Your task to perform on an android device: turn on translation in the chrome app Image 0: 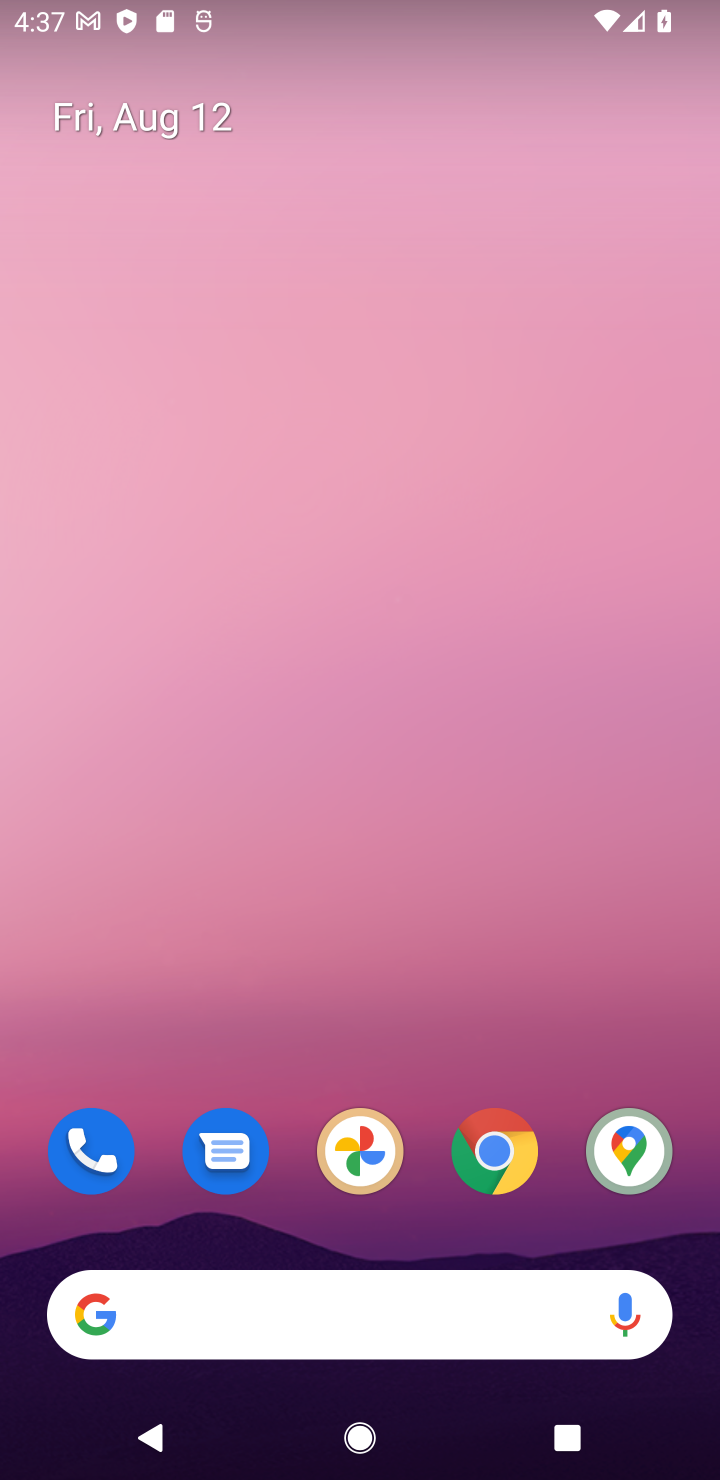
Step 0: drag from (409, 862) to (529, 143)
Your task to perform on an android device: turn on translation in the chrome app Image 1: 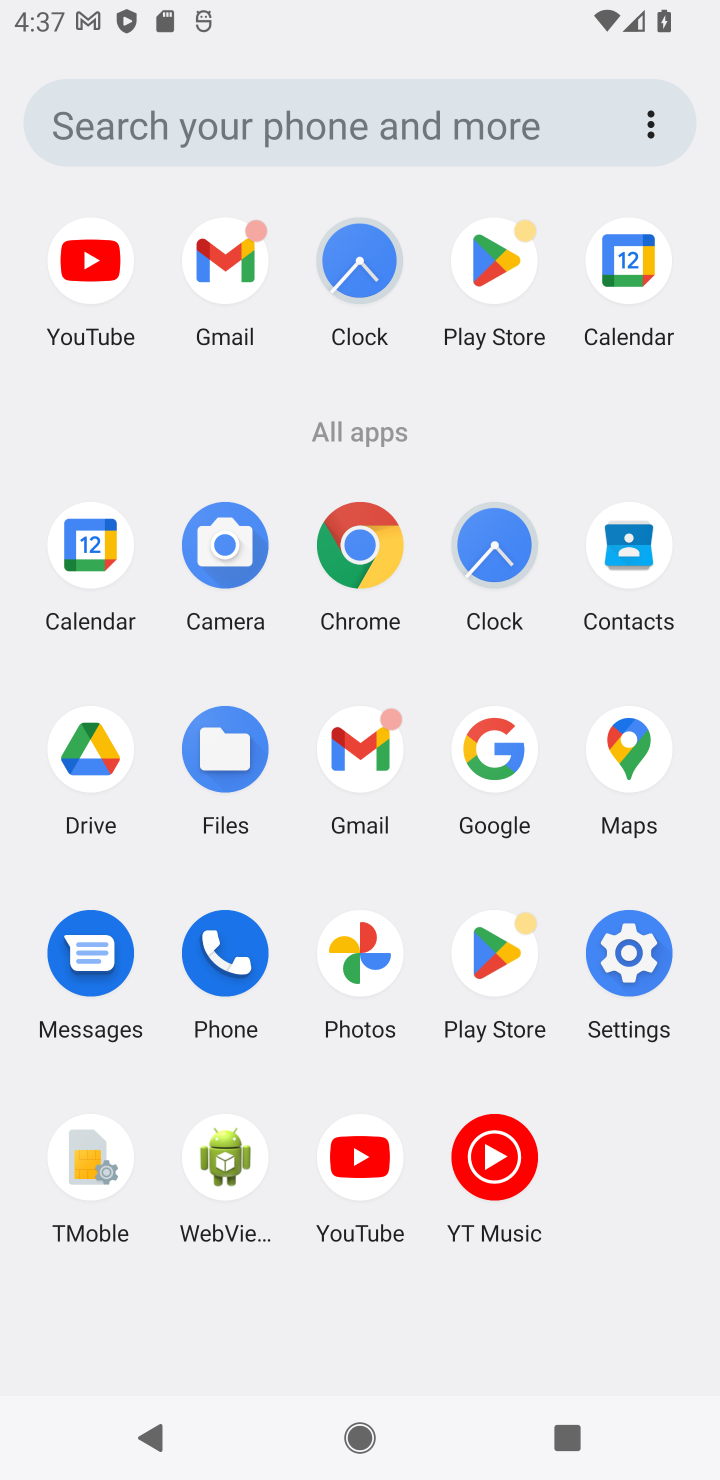
Step 1: click (358, 550)
Your task to perform on an android device: turn on translation in the chrome app Image 2: 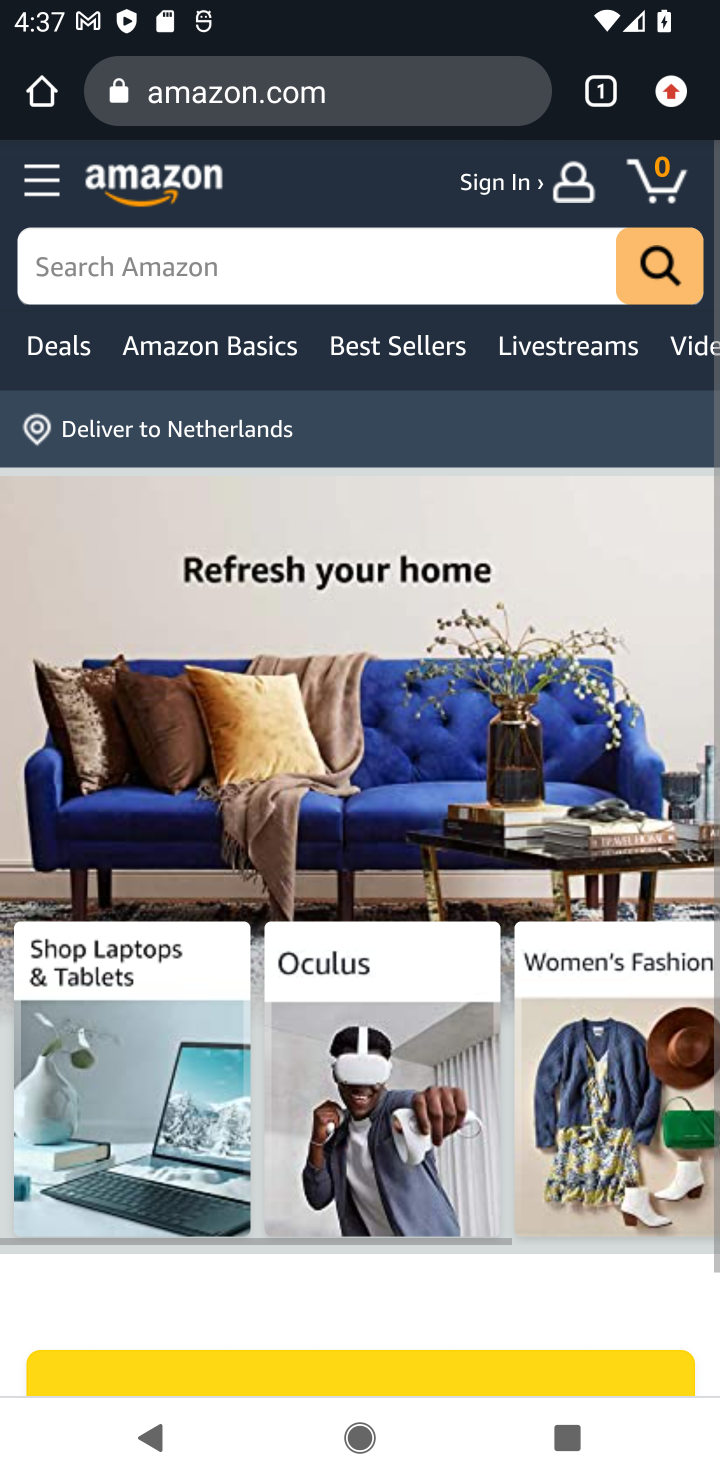
Step 2: drag from (705, 82) to (409, 1246)
Your task to perform on an android device: turn on translation in the chrome app Image 3: 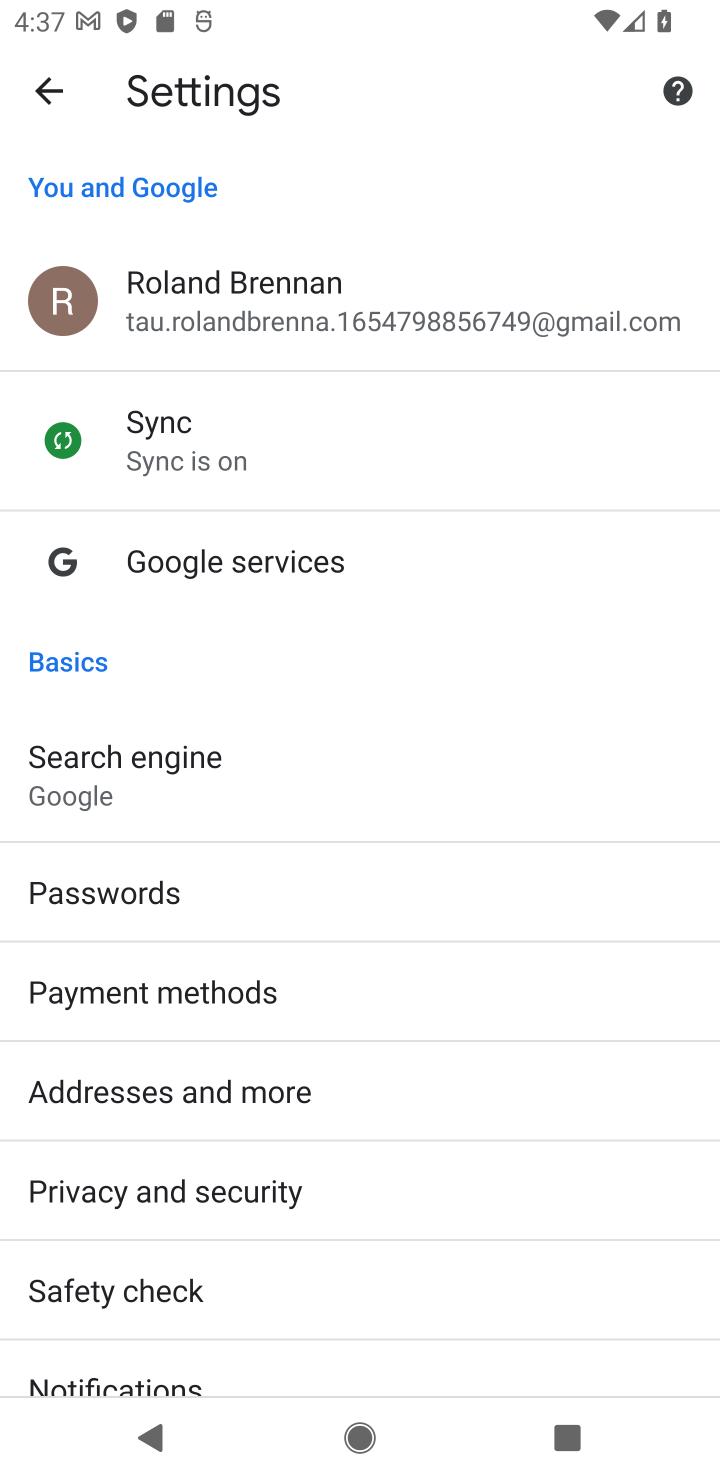
Step 3: drag from (325, 1312) to (484, 622)
Your task to perform on an android device: turn on translation in the chrome app Image 4: 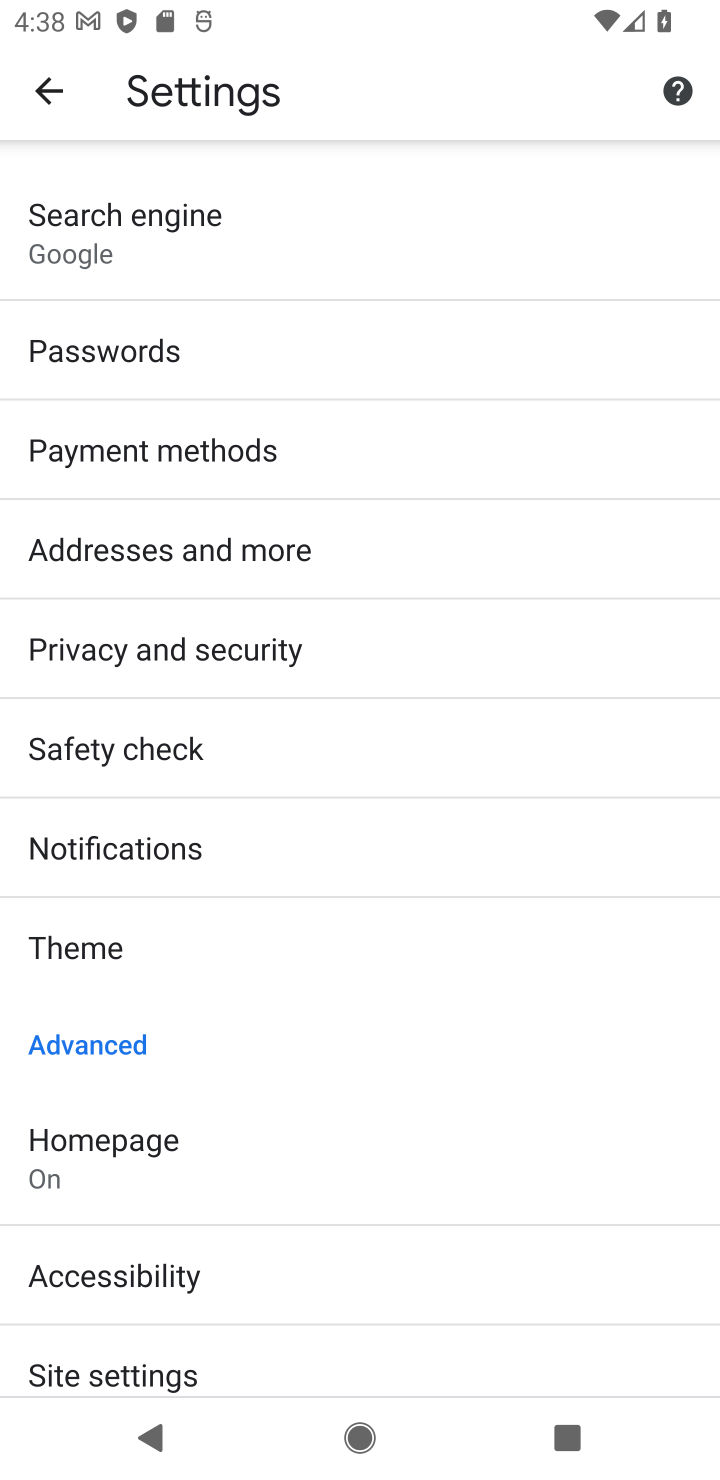
Step 4: drag from (260, 1258) to (486, 527)
Your task to perform on an android device: turn on translation in the chrome app Image 5: 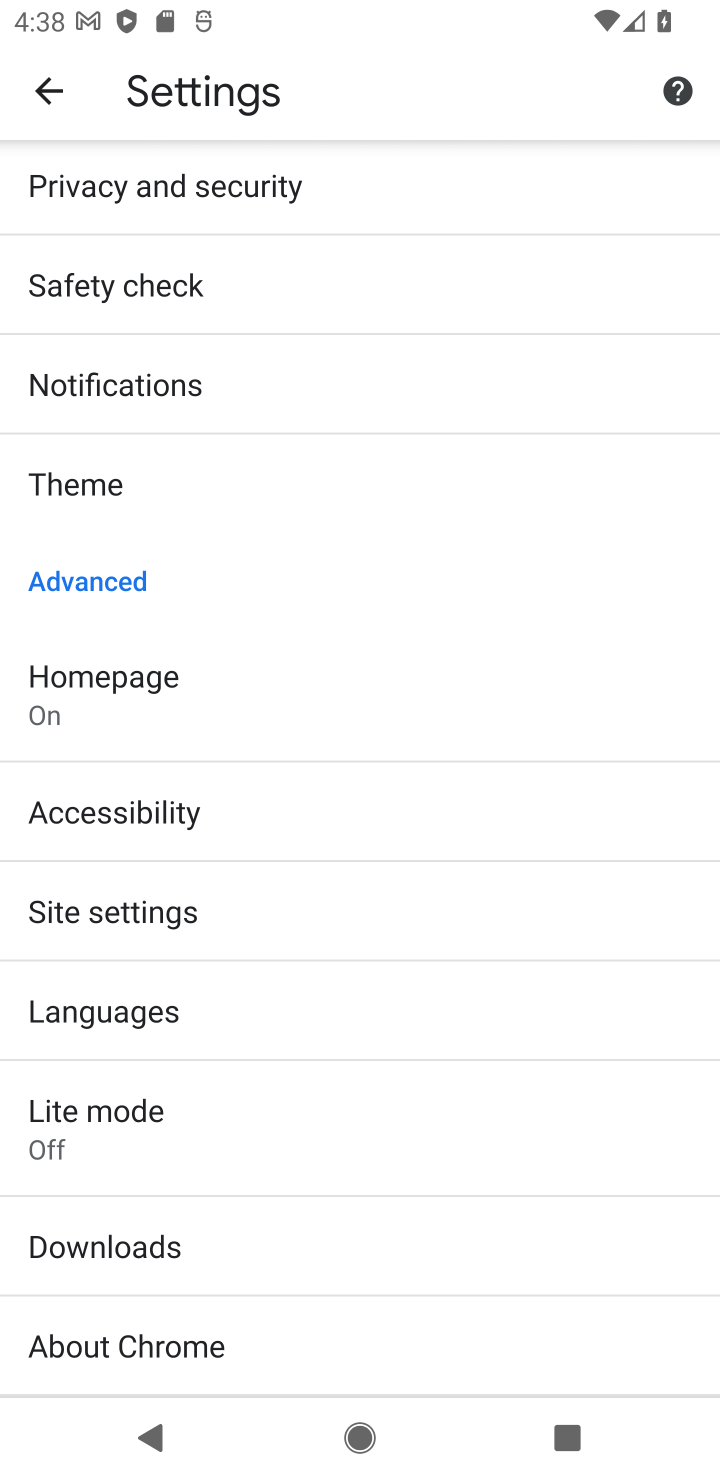
Step 5: click (138, 1006)
Your task to perform on an android device: turn on translation in the chrome app Image 6: 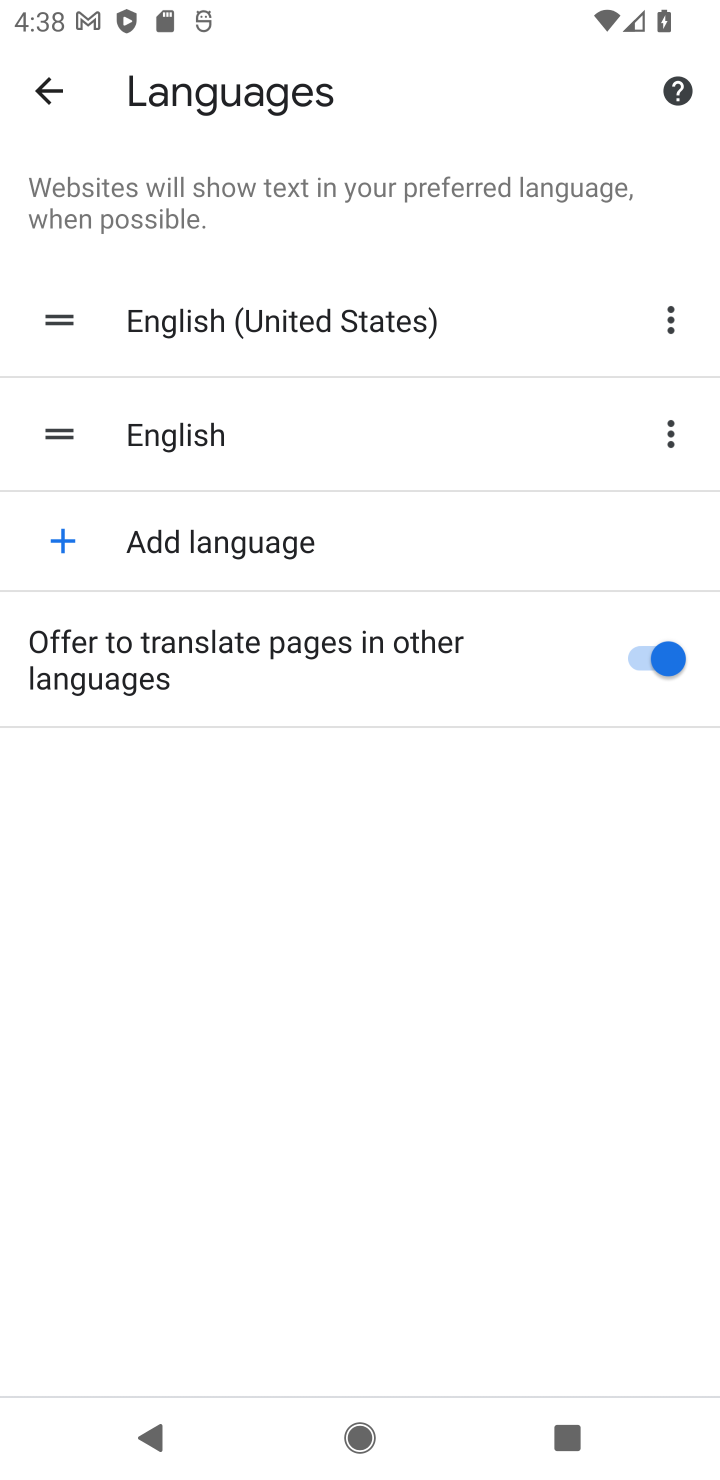
Step 6: click (648, 655)
Your task to perform on an android device: turn on translation in the chrome app Image 7: 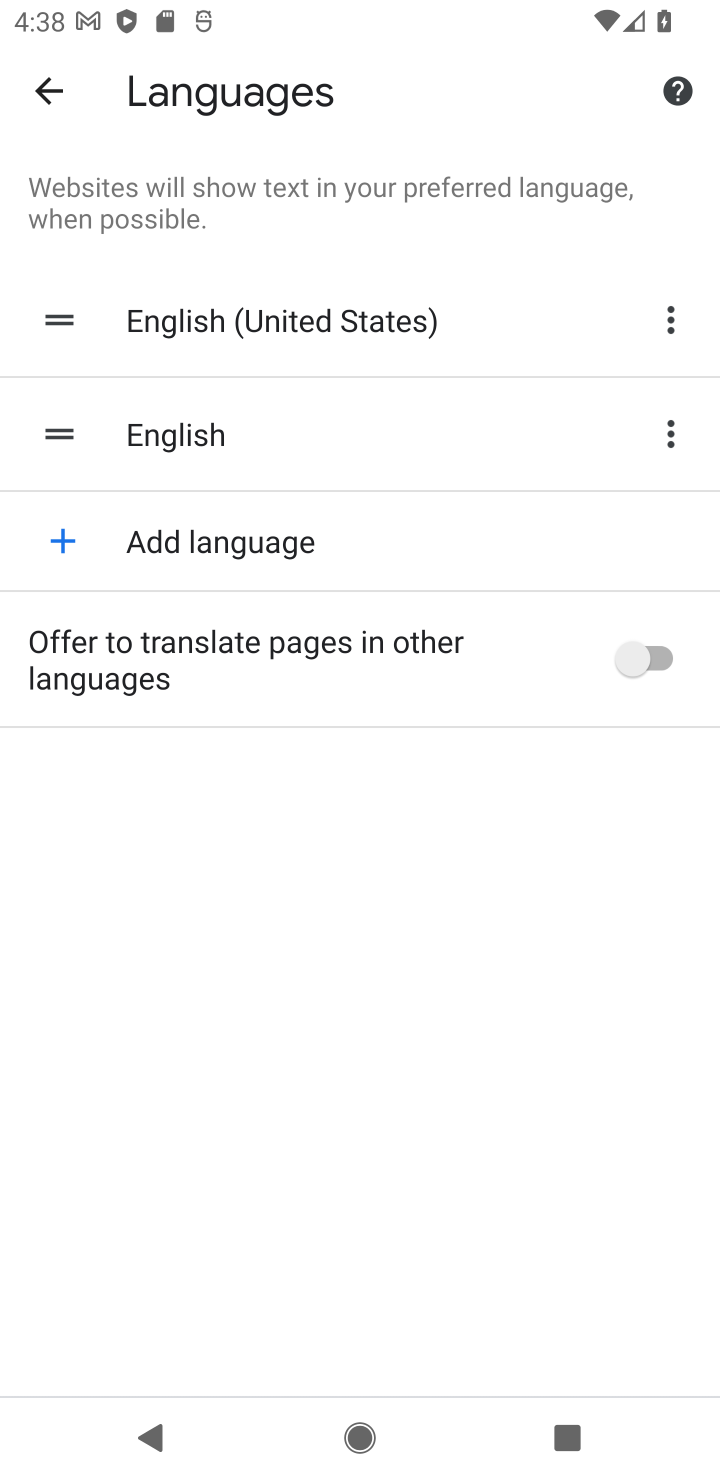
Step 7: click (674, 657)
Your task to perform on an android device: turn on translation in the chrome app Image 8: 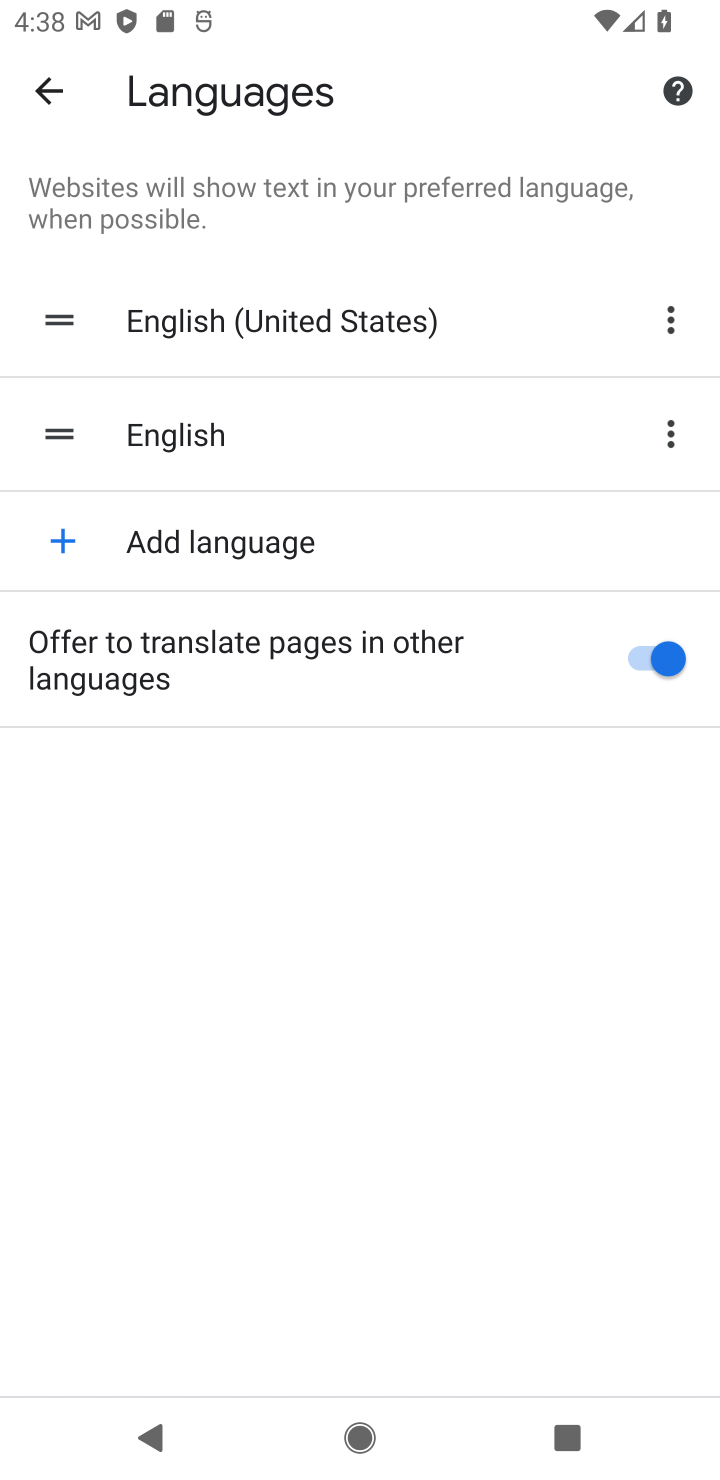
Step 8: task complete